Your task to perform on an android device: clear history in the chrome app Image 0: 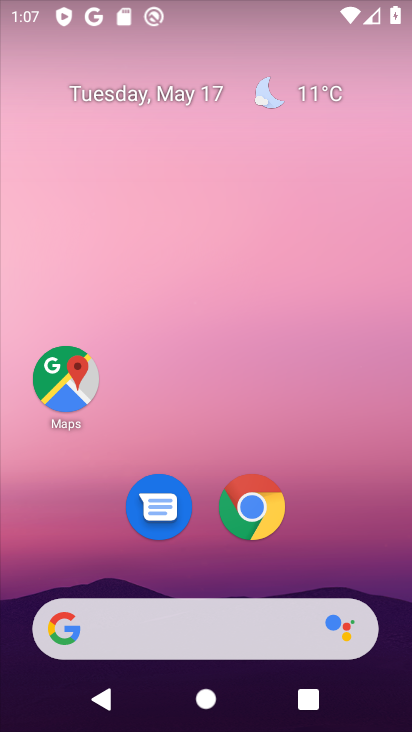
Step 0: drag from (206, 555) to (187, 514)
Your task to perform on an android device: clear history in the chrome app Image 1: 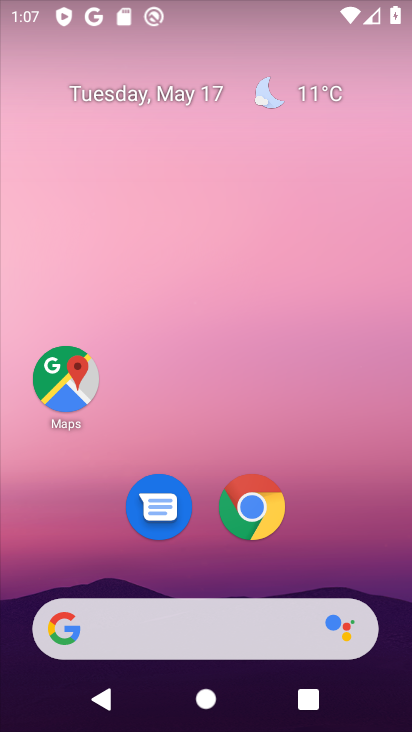
Step 1: click (253, 506)
Your task to perform on an android device: clear history in the chrome app Image 2: 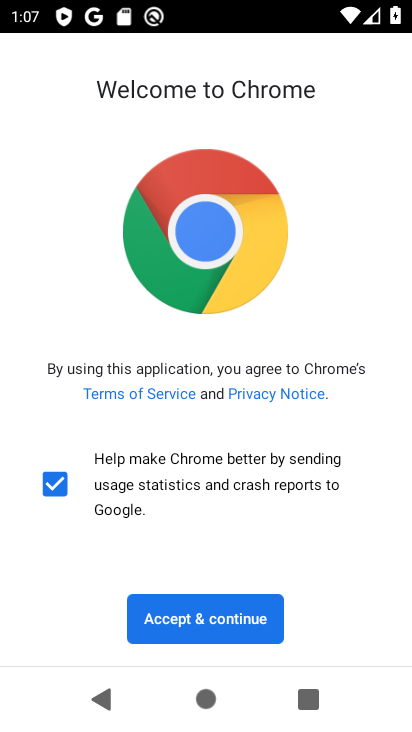
Step 2: click (217, 620)
Your task to perform on an android device: clear history in the chrome app Image 3: 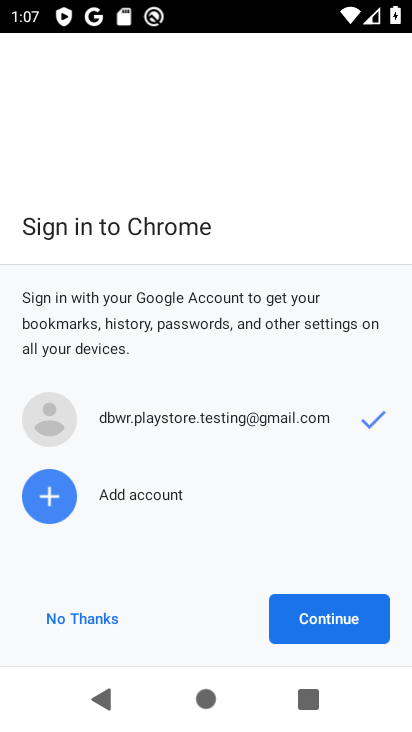
Step 3: click (316, 621)
Your task to perform on an android device: clear history in the chrome app Image 4: 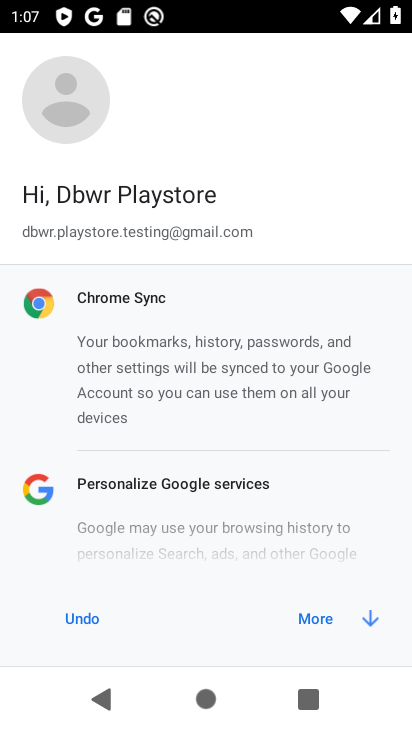
Step 4: click (316, 621)
Your task to perform on an android device: clear history in the chrome app Image 5: 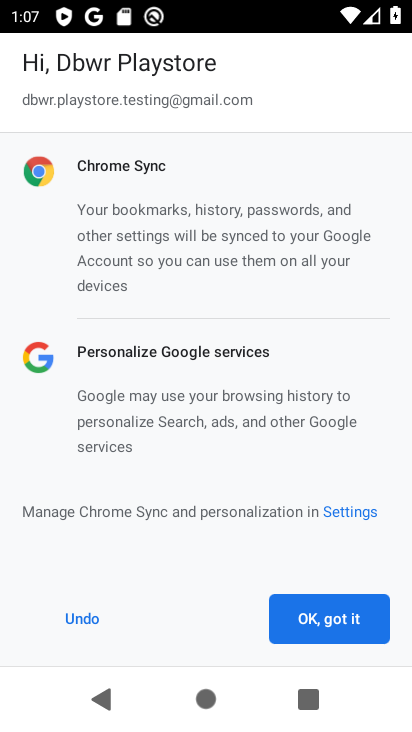
Step 5: click (316, 621)
Your task to perform on an android device: clear history in the chrome app Image 6: 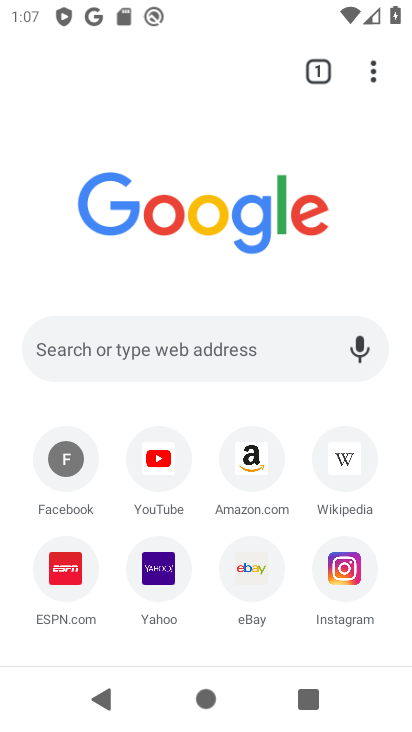
Step 6: click (365, 71)
Your task to perform on an android device: clear history in the chrome app Image 7: 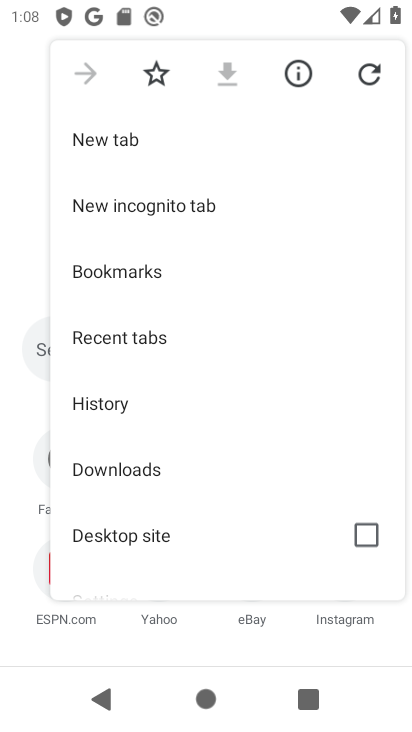
Step 7: click (133, 416)
Your task to perform on an android device: clear history in the chrome app Image 8: 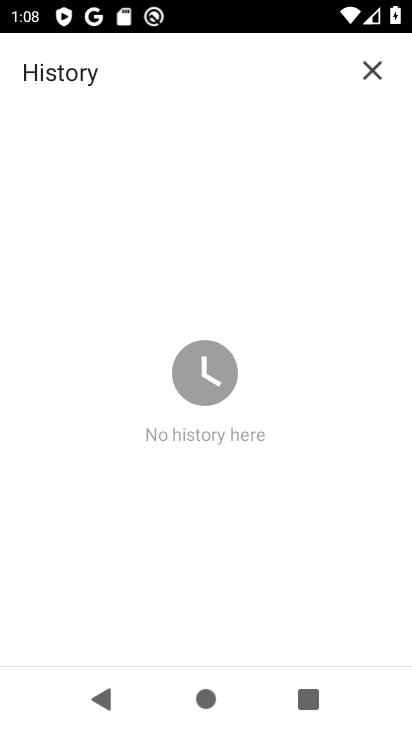
Step 8: task complete